Your task to perform on an android device: turn on notifications settings in the gmail app Image 0: 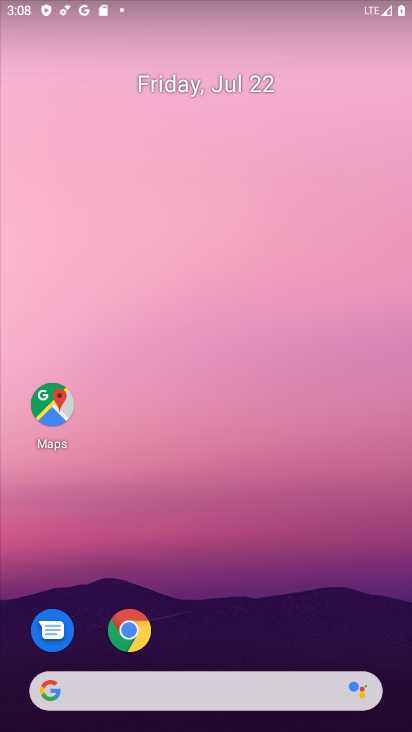
Step 0: drag from (222, 674) to (210, 215)
Your task to perform on an android device: turn on notifications settings in the gmail app Image 1: 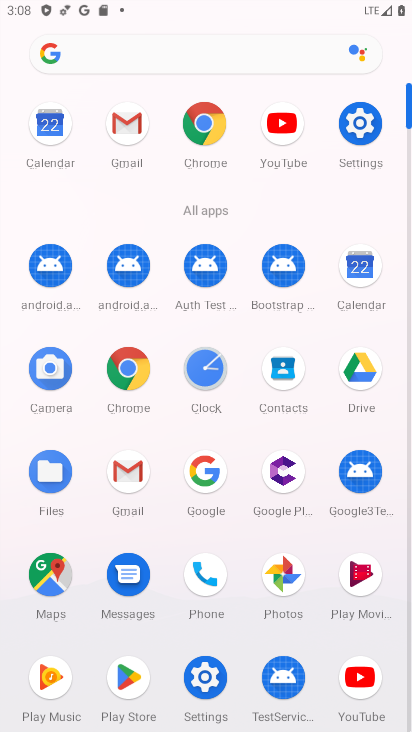
Step 1: click (129, 110)
Your task to perform on an android device: turn on notifications settings in the gmail app Image 2: 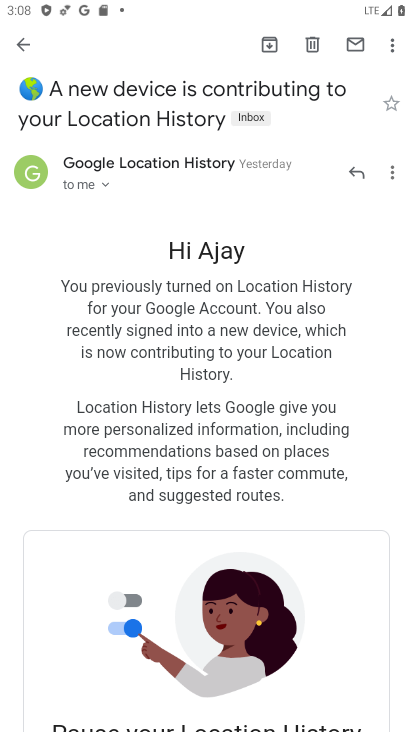
Step 2: click (23, 50)
Your task to perform on an android device: turn on notifications settings in the gmail app Image 3: 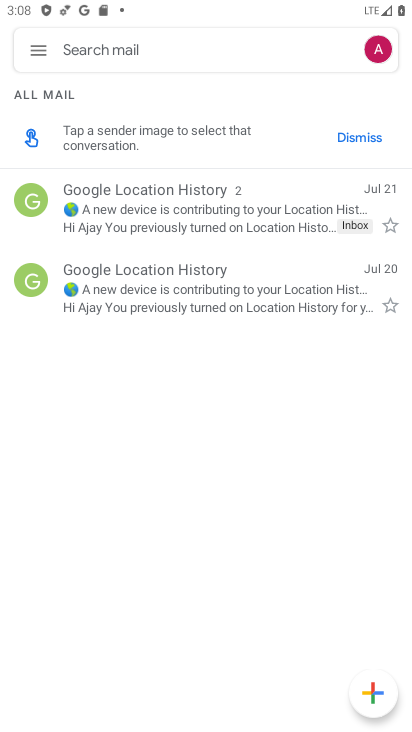
Step 3: click (33, 50)
Your task to perform on an android device: turn on notifications settings in the gmail app Image 4: 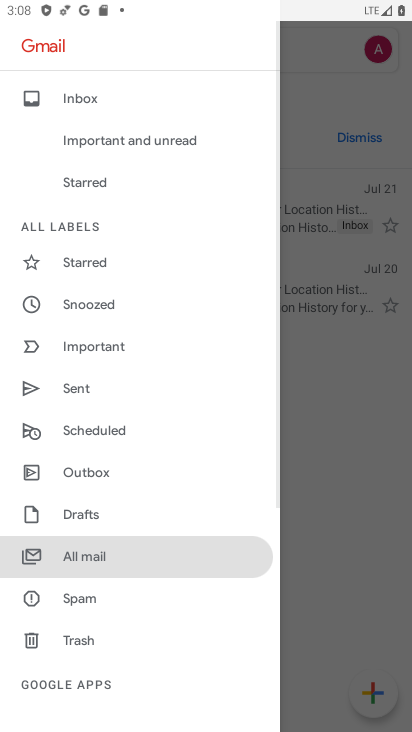
Step 4: drag from (94, 556) to (30, 13)
Your task to perform on an android device: turn on notifications settings in the gmail app Image 5: 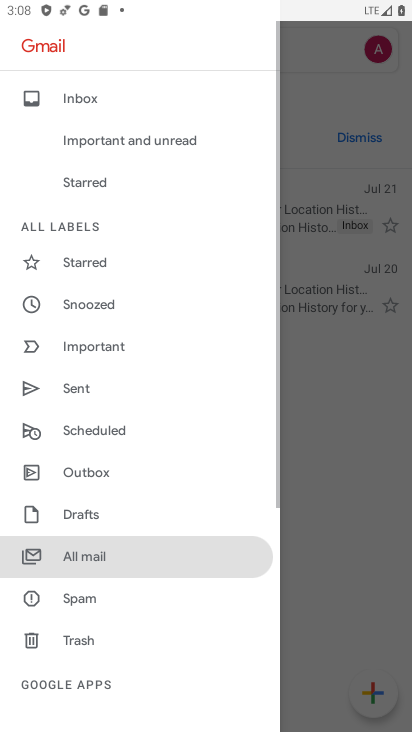
Step 5: drag from (104, 578) to (83, 209)
Your task to perform on an android device: turn on notifications settings in the gmail app Image 6: 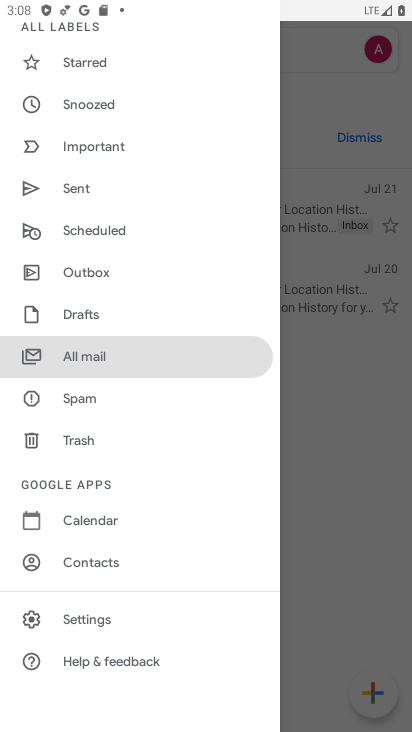
Step 6: click (101, 614)
Your task to perform on an android device: turn on notifications settings in the gmail app Image 7: 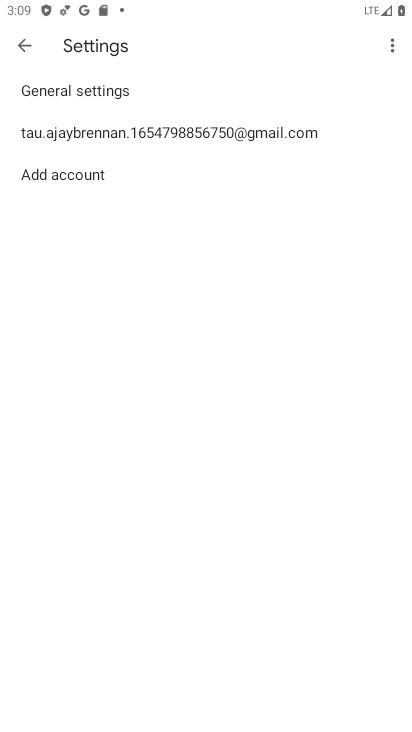
Step 7: click (172, 131)
Your task to perform on an android device: turn on notifications settings in the gmail app Image 8: 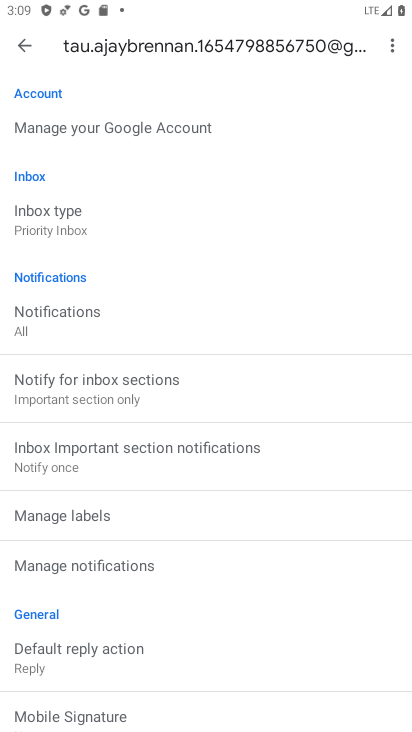
Step 8: click (120, 573)
Your task to perform on an android device: turn on notifications settings in the gmail app Image 9: 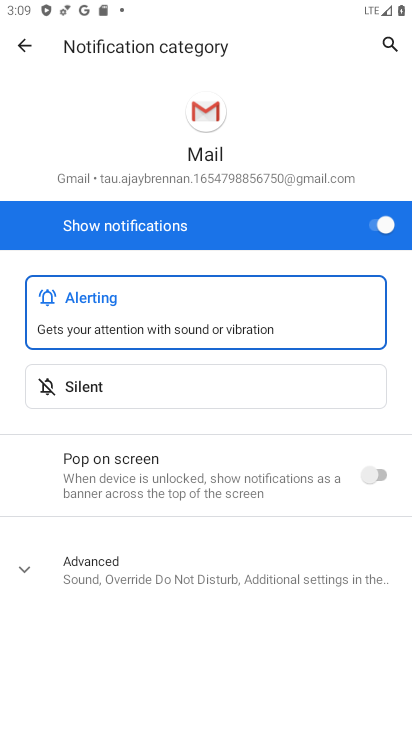
Step 9: task complete